Your task to perform on an android device: See recent photos Image 0: 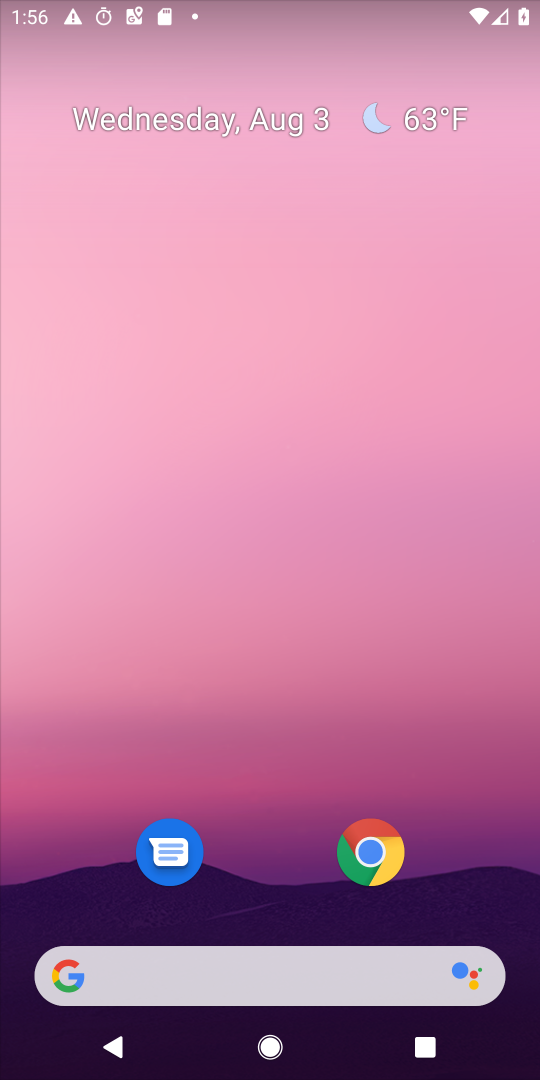
Step 0: drag from (481, 876) to (285, 18)
Your task to perform on an android device: See recent photos Image 1: 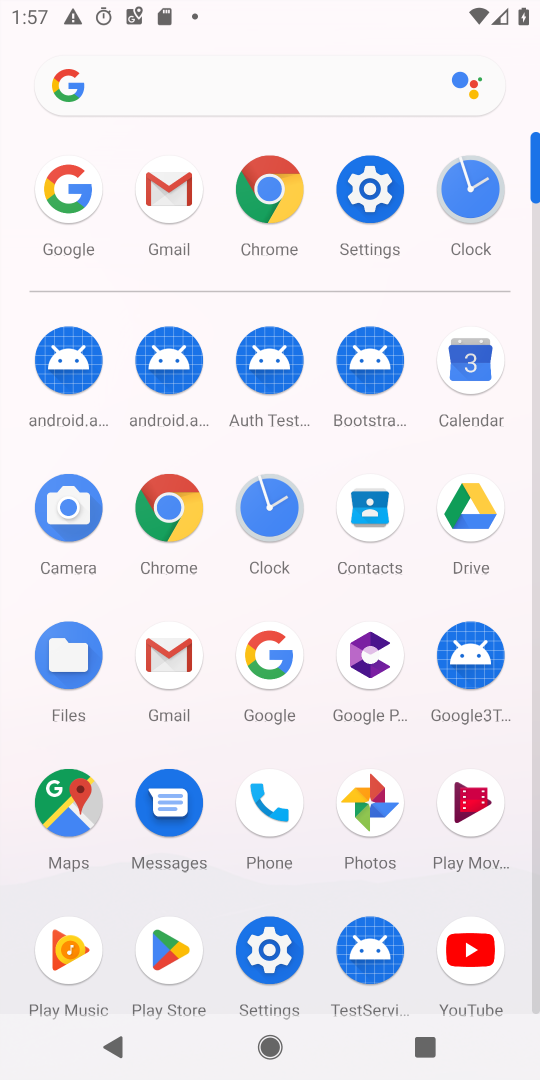
Step 1: click (371, 809)
Your task to perform on an android device: See recent photos Image 2: 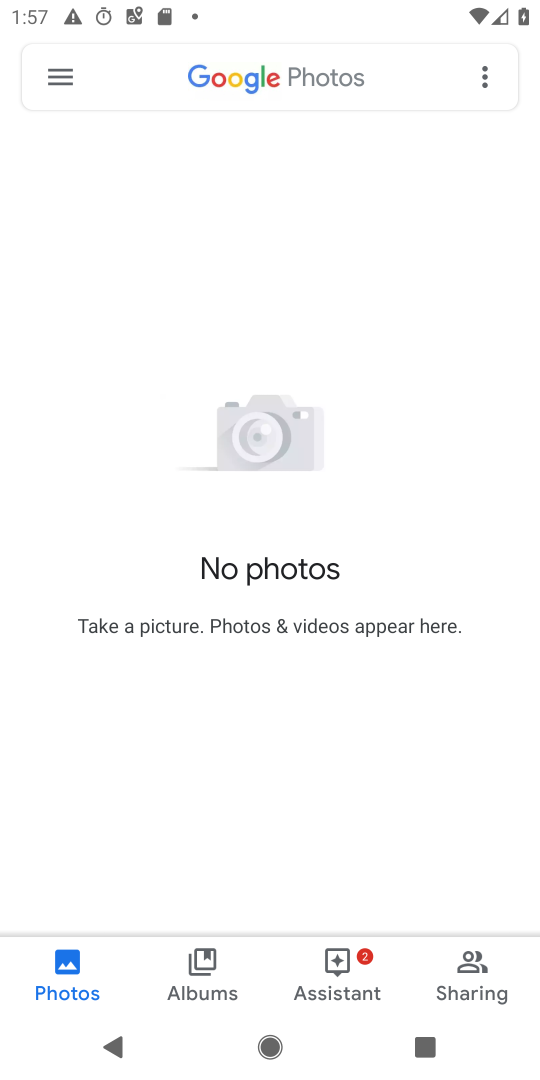
Step 2: task complete